Your task to perform on an android device: Go to privacy settings Image 0: 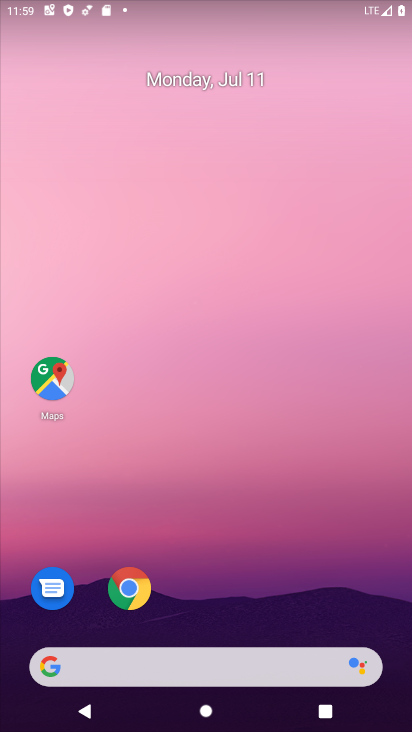
Step 0: drag from (310, 608) to (233, 96)
Your task to perform on an android device: Go to privacy settings Image 1: 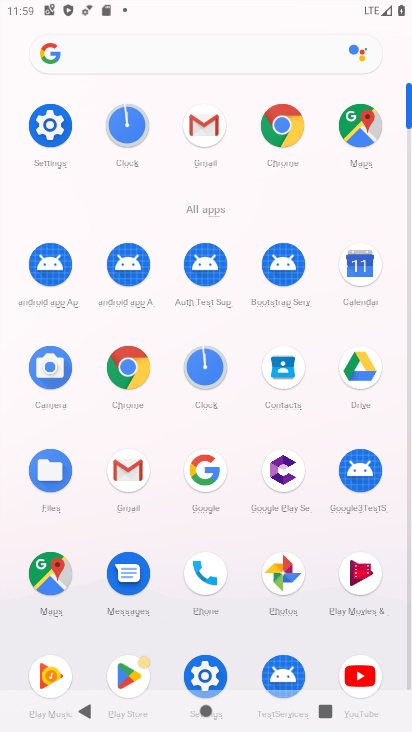
Step 1: click (46, 126)
Your task to perform on an android device: Go to privacy settings Image 2: 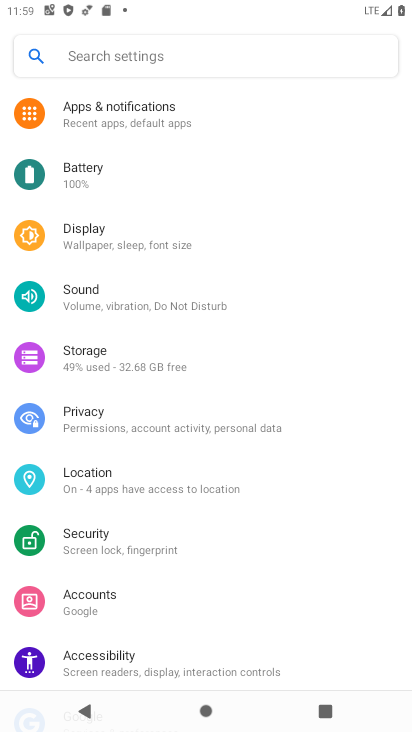
Step 2: click (100, 410)
Your task to perform on an android device: Go to privacy settings Image 3: 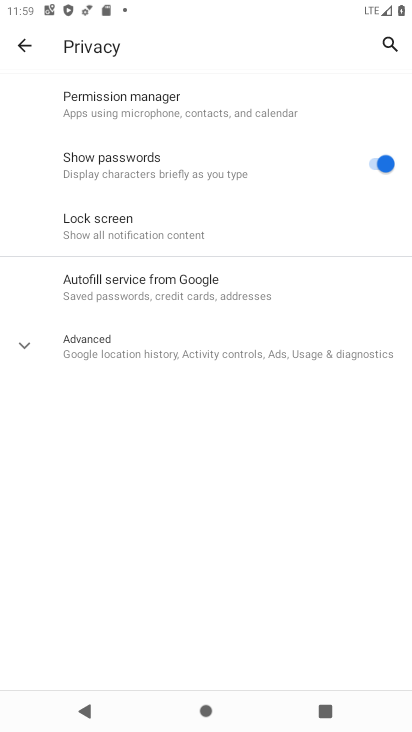
Step 3: task complete